Your task to perform on an android device: What's on the menu at Starbucks? Image 0: 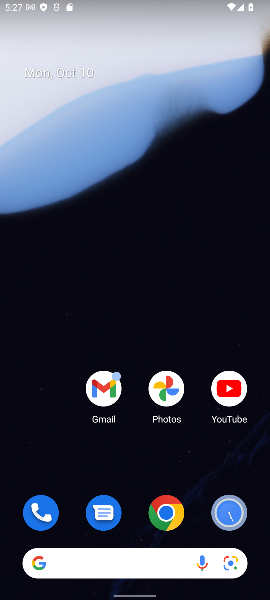
Step 0: click (121, 569)
Your task to perform on an android device: What's on the menu at Starbucks? Image 1: 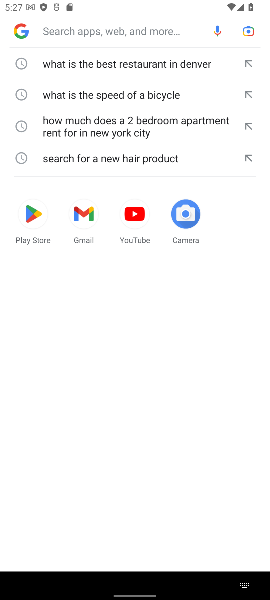
Step 1: type "What's on the menu at Starbucks?"
Your task to perform on an android device: What's on the menu at Starbucks? Image 2: 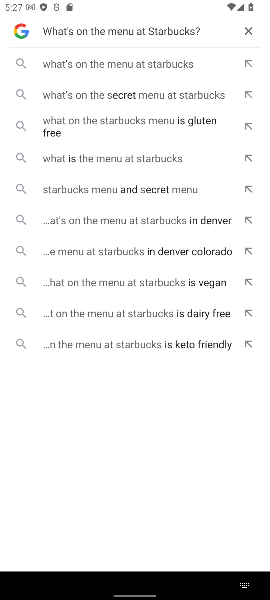
Step 2: click (167, 61)
Your task to perform on an android device: What's on the menu at Starbucks? Image 3: 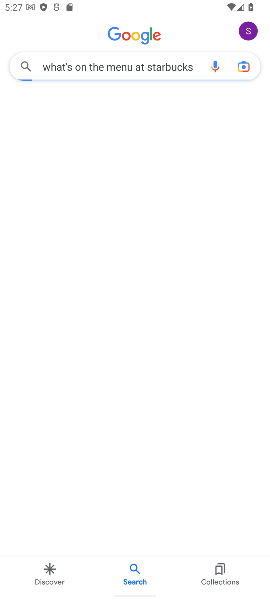
Step 3: task complete